Your task to perform on an android device: Show me productivity apps on the Play Store Image 0: 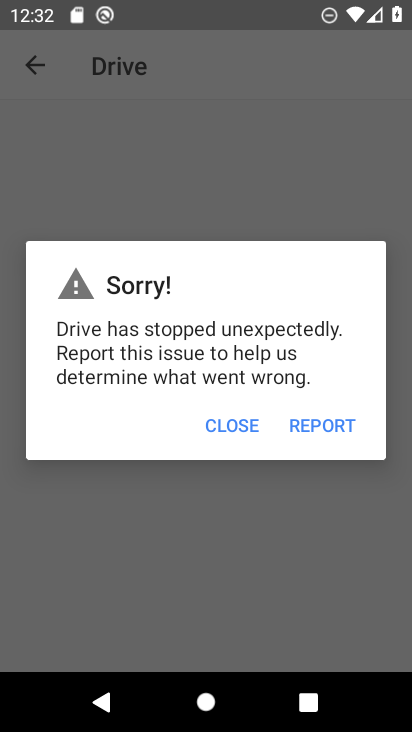
Step 0: press home button
Your task to perform on an android device: Show me productivity apps on the Play Store Image 1: 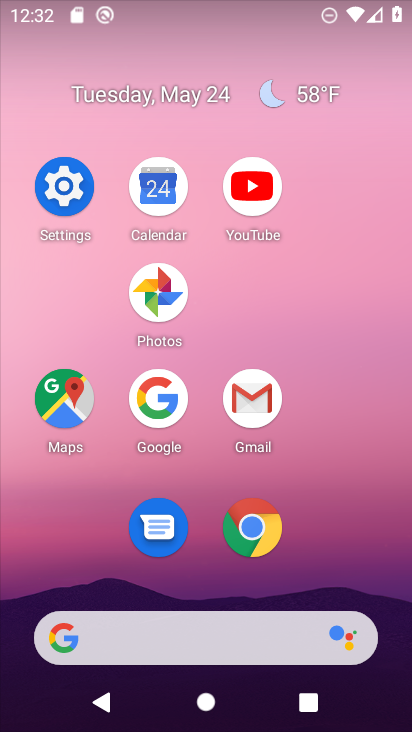
Step 1: drag from (280, 553) to (276, 152)
Your task to perform on an android device: Show me productivity apps on the Play Store Image 2: 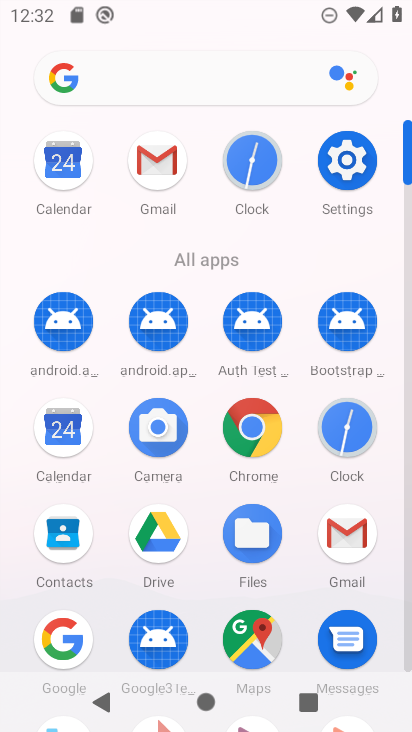
Step 2: drag from (173, 624) to (187, 296)
Your task to perform on an android device: Show me productivity apps on the Play Store Image 3: 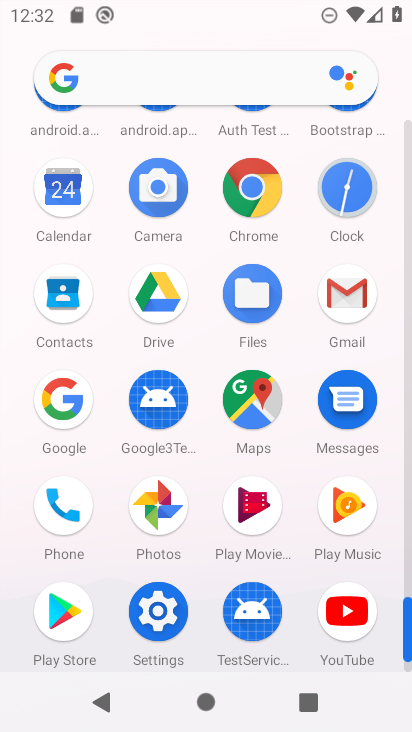
Step 3: click (54, 592)
Your task to perform on an android device: Show me productivity apps on the Play Store Image 4: 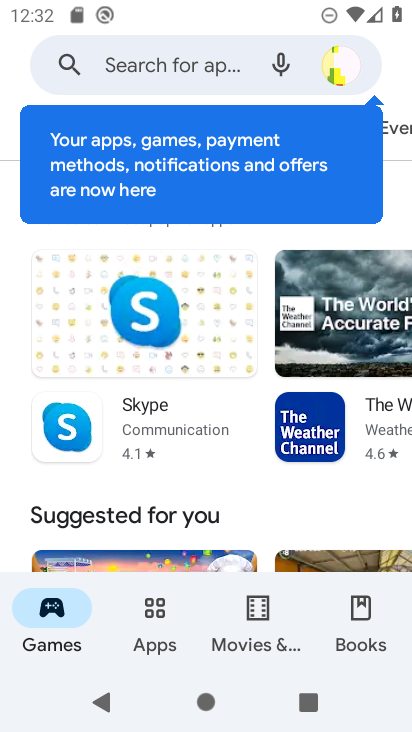
Step 4: click (163, 626)
Your task to perform on an android device: Show me productivity apps on the Play Store Image 5: 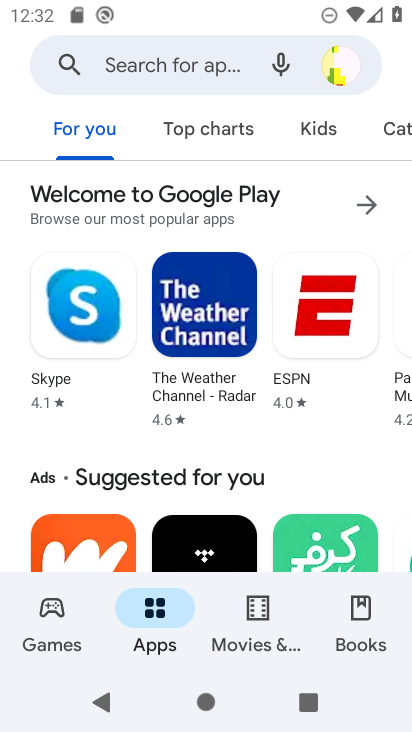
Step 5: drag from (341, 121) to (36, 127)
Your task to perform on an android device: Show me productivity apps on the Play Store Image 6: 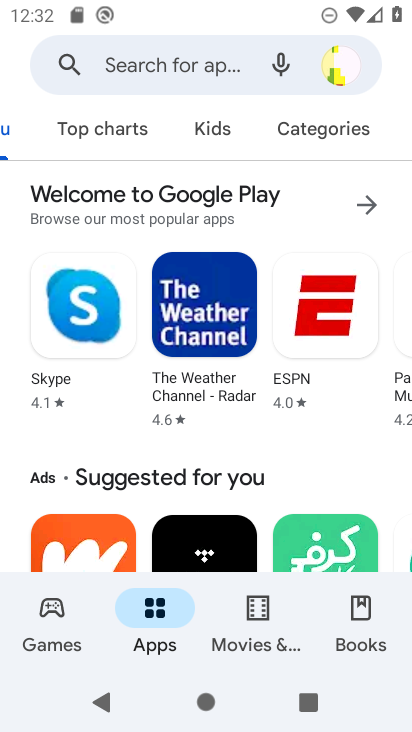
Step 6: drag from (338, 135) to (95, 154)
Your task to perform on an android device: Show me productivity apps on the Play Store Image 7: 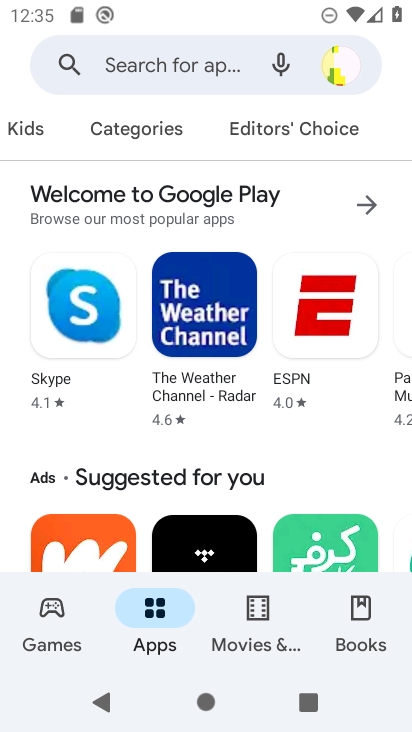
Step 7: click (105, 129)
Your task to perform on an android device: Show me productivity apps on the Play Store Image 8: 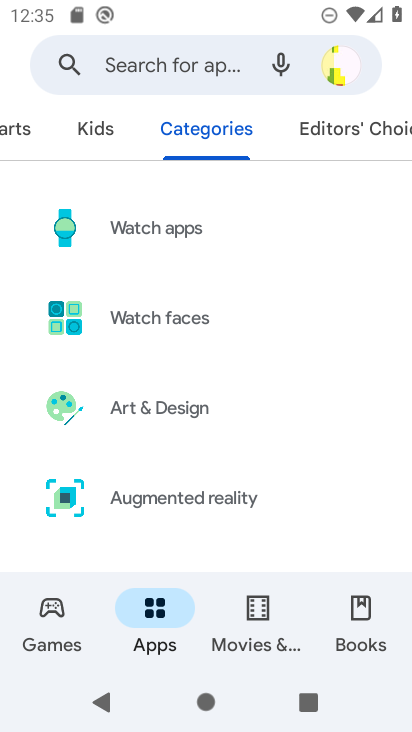
Step 8: drag from (288, 540) to (328, 192)
Your task to perform on an android device: Show me productivity apps on the Play Store Image 9: 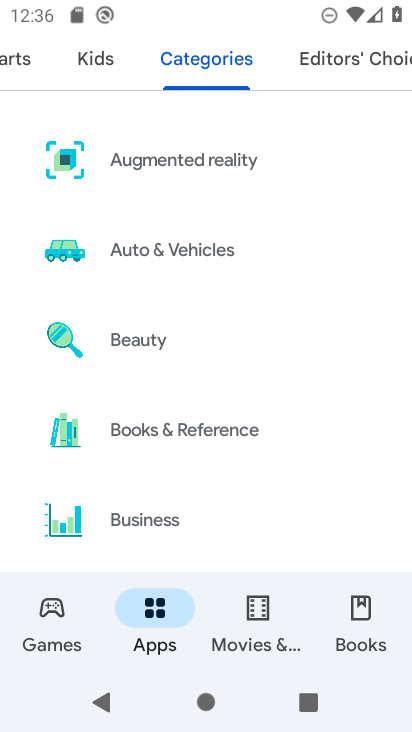
Step 9: drag from (289, 475) to (264, 0)
Your task to perform on an android device: Show me productivity apps on the Play Store Image 10: 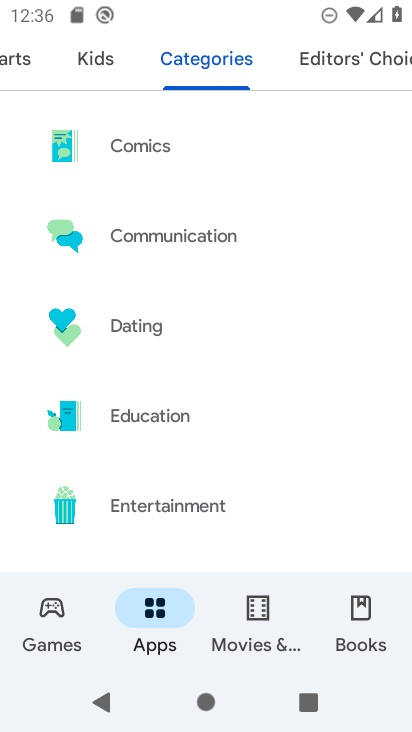
Step 10: drag from (234, 482) to (236, 72)
Your task to perform on an android device: Show me productivity apps on the Play Store Image 11: 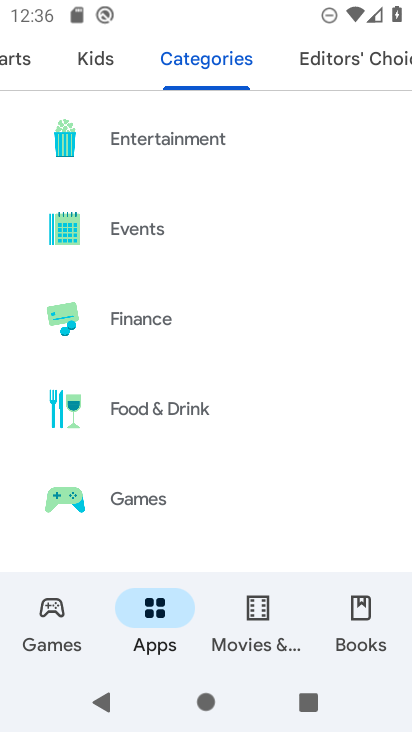
Step 11: drag from (282, 485) to (245, 139)
Your task to perform on an android device: Show me productivity apps on the Play Store Image 12: 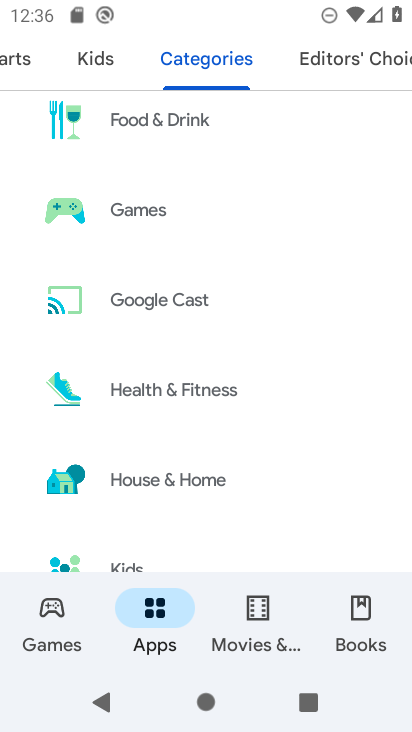
Step 12: drag from (262, 548) to (254, 163)
Your task to perform on an android device: Show me productivity apps on the Play Store Image 13: 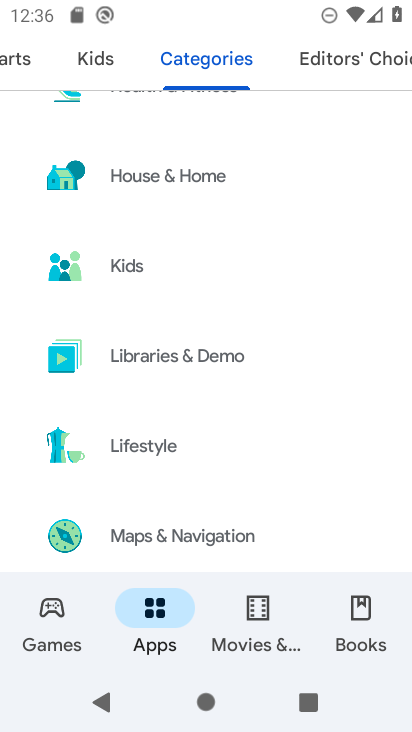
Step 13: drag from (203, 507) to (235, 177)
Your task to perform on an android device: Show me productivity apps on the Play Store Image 14: 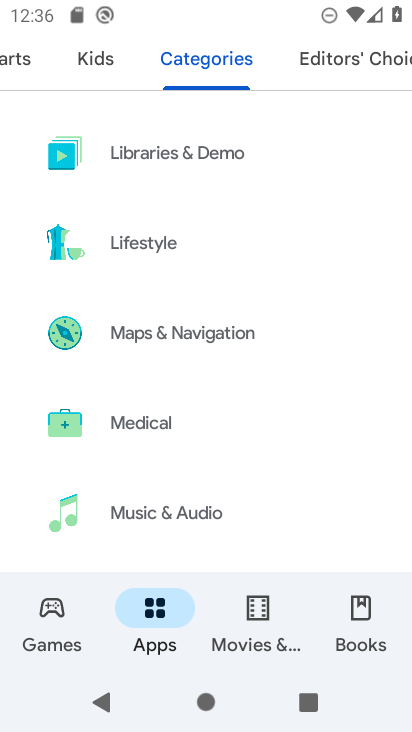
Step 14: drag from (294, 512) to (250, 170)
Your task to perform on an android device: Show me productivity apps on the Play Store Image 15: 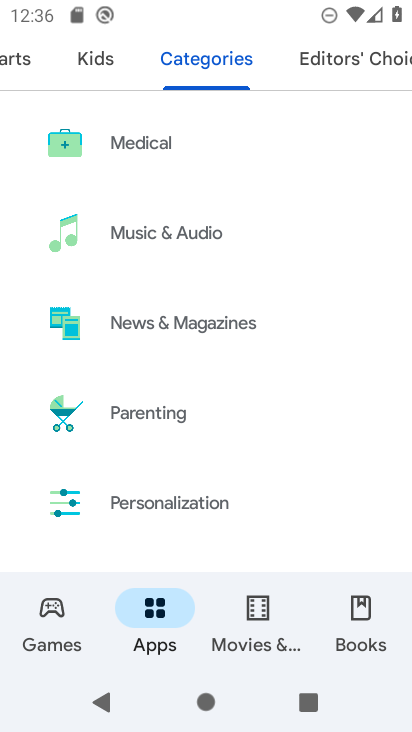
Step 15: drag from (240, 482) to (263, 172)
Your task to perform on an android device: Show me productivity apps on the Play Store Image 16: 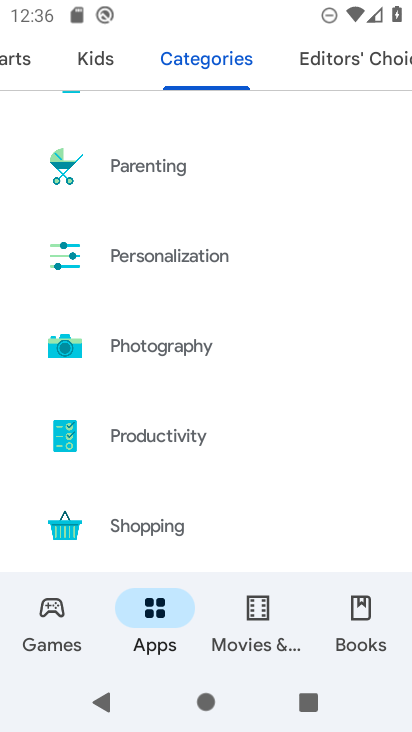
Step 16: click (235, 432)
Your task to perform on an android device: Show me productivity apps on the Play Store Image 17: 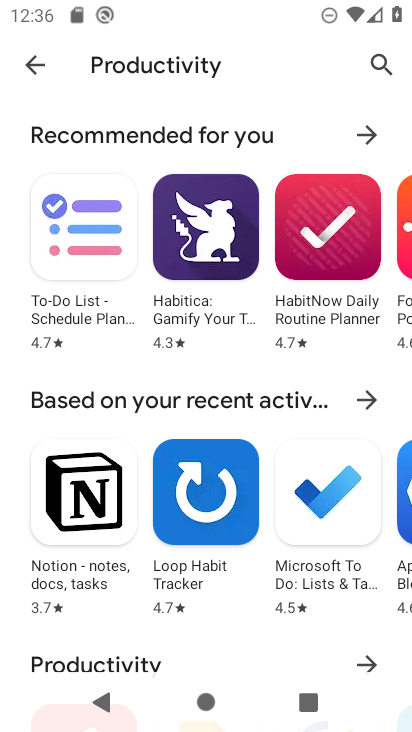
Step 17: task complete